Your task to perform on an android device: Go to settings Image 0: 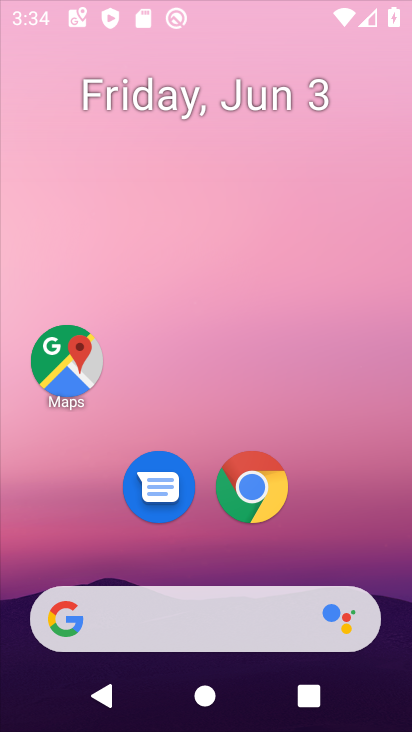
Step 0: click (309, 232)
Your task to perform on an android device: Go to settings Image 1: 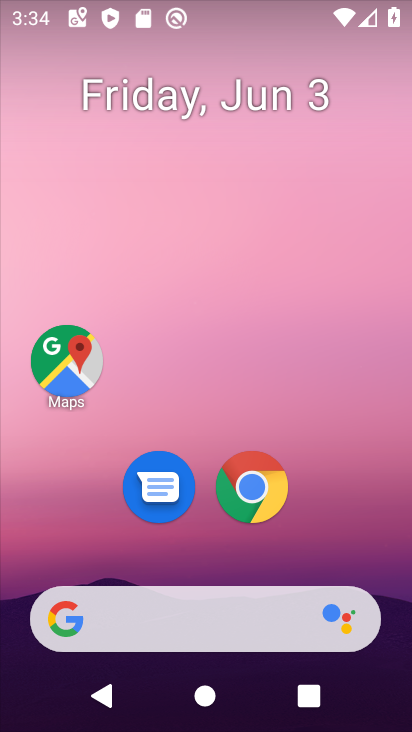
Step 1: drag from (187, 540) to (198, 379)
Your task to perform on an android device: Go to settings Image 2: 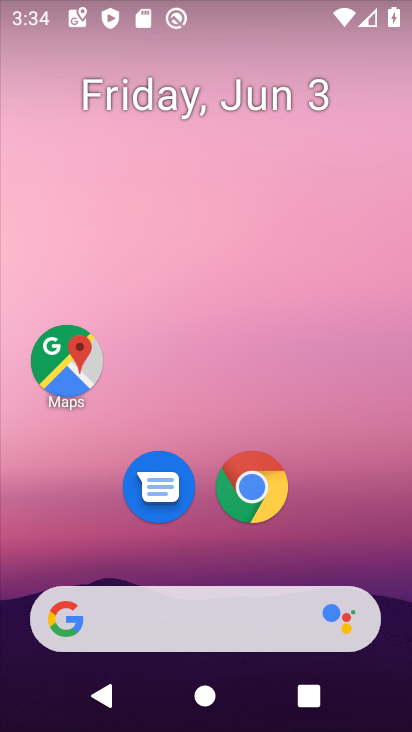
Step 2: drag from (196, 551) to (248, 244)
Your task to perform on an android device: Go to settings Image 3: 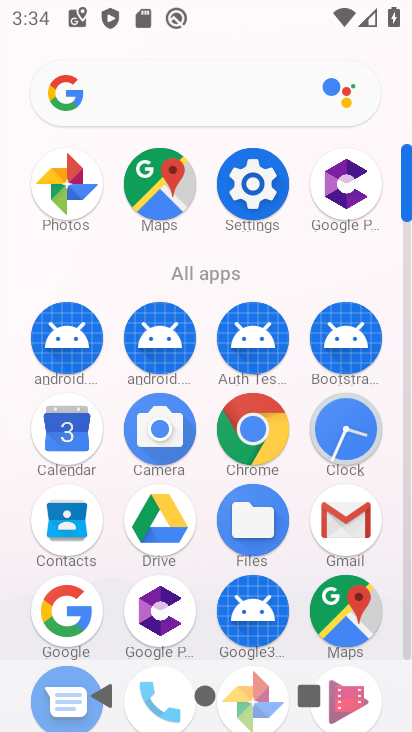
Step 3: click (245, 195)
Your task to perform on an android device: Go to settings Image 4: 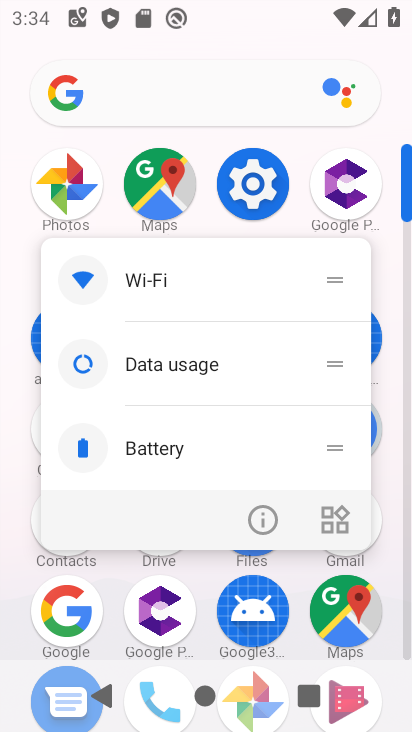
Step 4: click (272, 513)
Your task to perform on an android device: Go to settings Image 5: 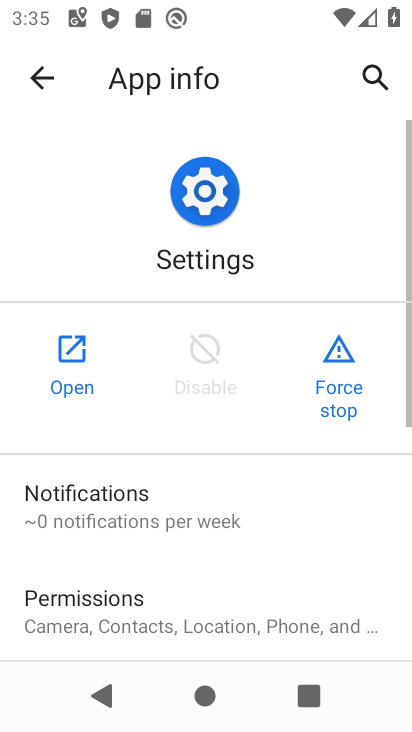
Step 5: click (79, 350)
Your task to perform on an android device: Go to settings Image 6: 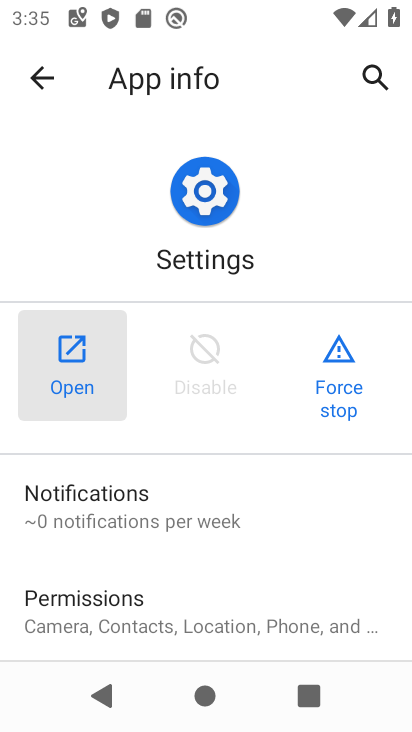
Step 6: task complete